Your task to perform on an android device: turn off notifications settings in the gmail app Image 0: 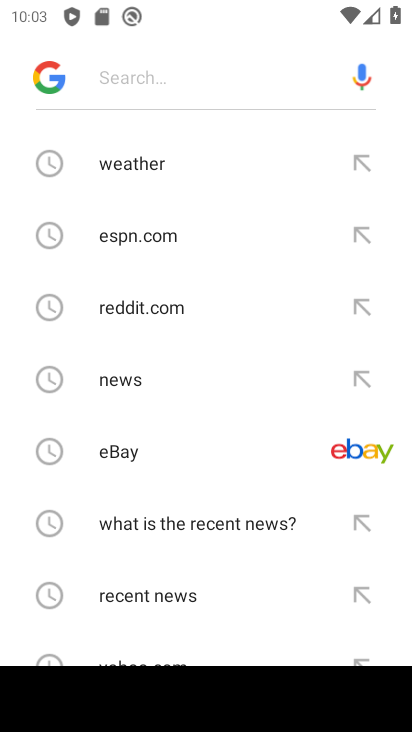
Step 0: press home button
Your task to perform on an android device: turn off notifications settings in the gmail app Image 1: 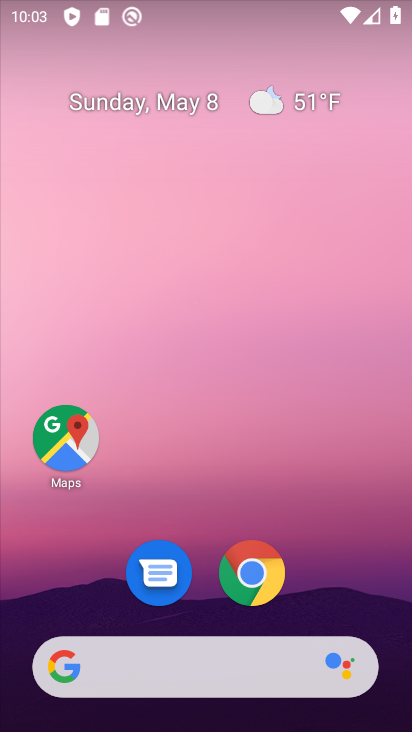
Step 1: drag from (249, 623) to (248, 236)
Your task to perform on an android device: turn off notifications settings in the gmail app Image 2: 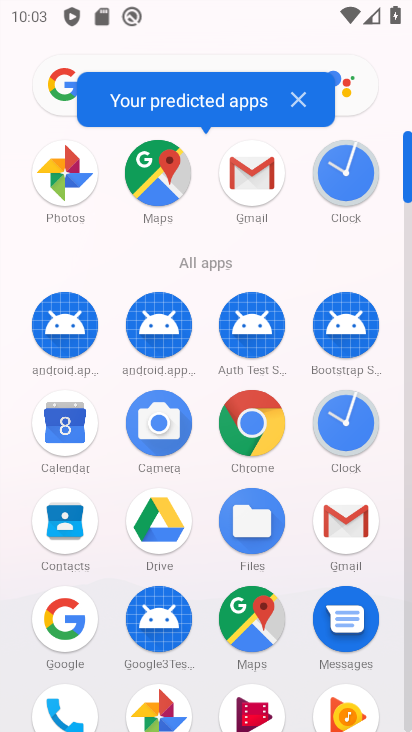
Step 2: click (255, 191)
Your task to perform on an android device: turn off notifications settings in the gmail app Image 3: 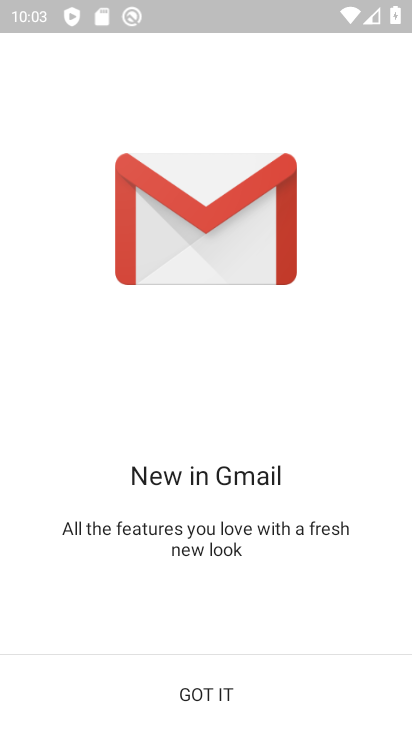
Step 3: click (187, 700)
Your task to perform on an android device: turn off notifications settings in the gmail app Image 4: 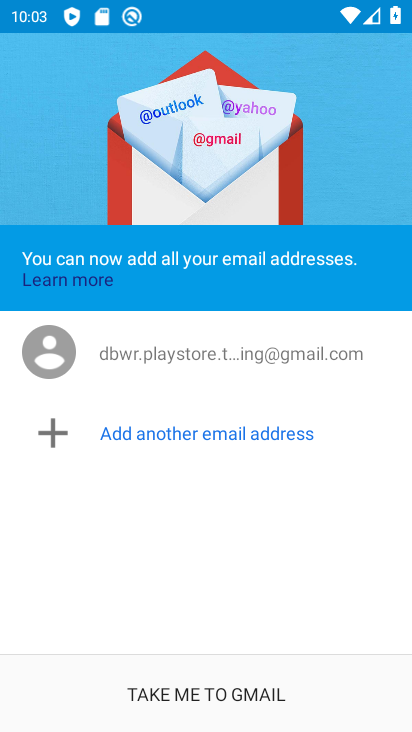
Step 4: click (187, 700)
Your task to perform on an android device: turn off notifications settings in the gmail app Image 5: 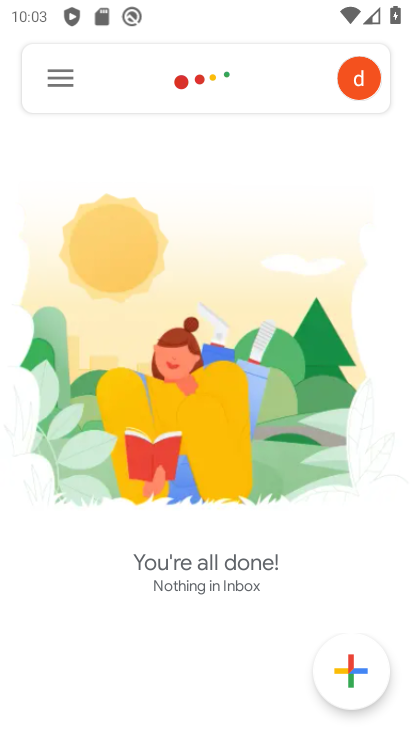
Step 5: click (67, 76)
Your task to perform on an android device: turn off notifications settings in the gmail app Image 6: 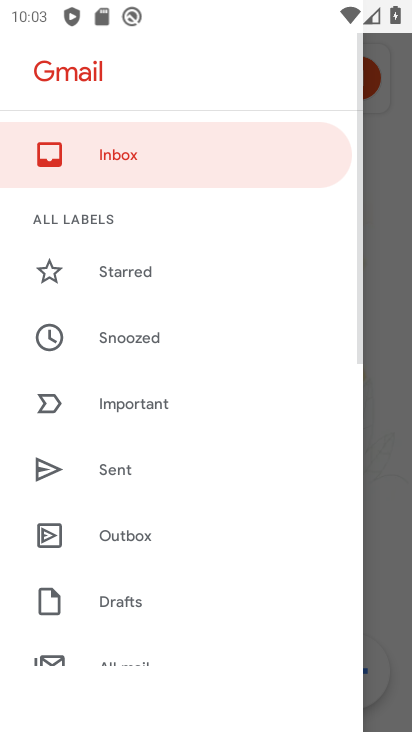
Step 6: drag from (140, 652) to (173, 332)
Your task to perform on an android device: turn off notifications settings in the gmail app Image 7: 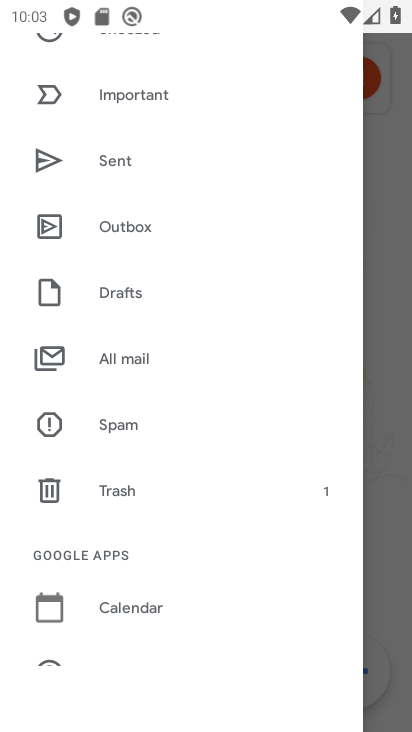
Step 7: drag from (67, 653) to (128, 348)
Your task to perform on an android device: turn off notifications settings in the gmail app Image 8: 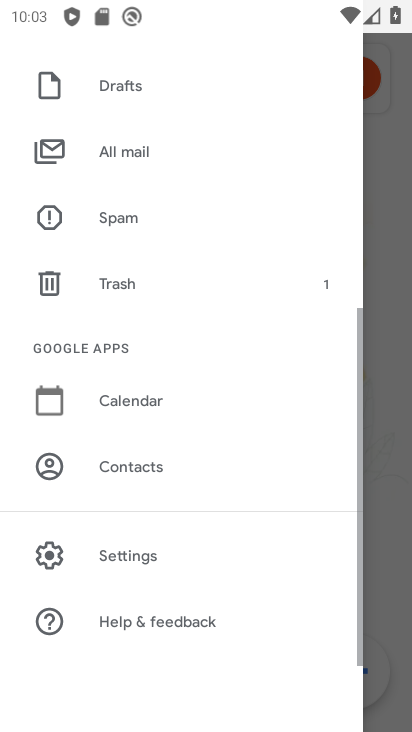
Step 8: click (123, 556)
Your task to perform on an android device: turn off notifications settings in the gmail app Image 9: 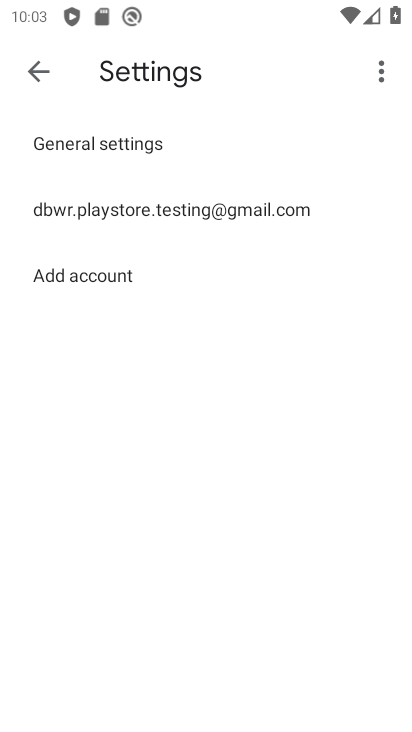
Step 9: click (104, 211)
Your task to perform on an android device: turn off notifications settings in the gmail app Image 10: 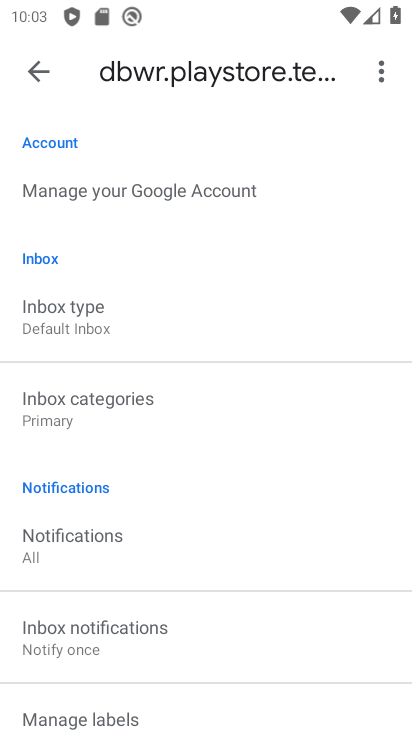
Step 10: click (48, 73)
Your task to perform on an android device: turn off notifications settings in the gmail app Image 11: 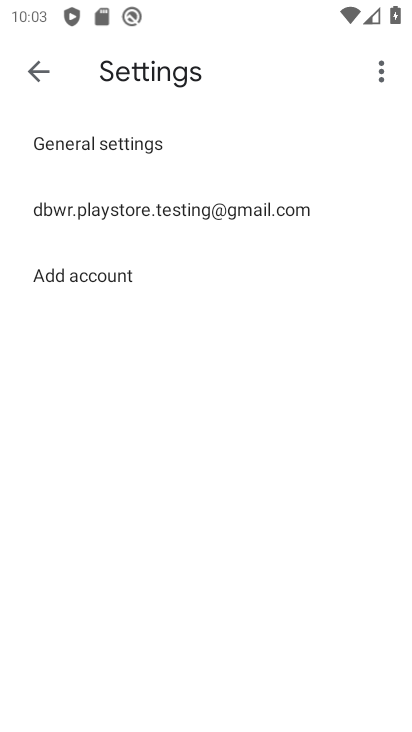
Step 11: click (127, 139)
Your task to perform on an android device: turn off notifications settings in the gmail app Image 12: 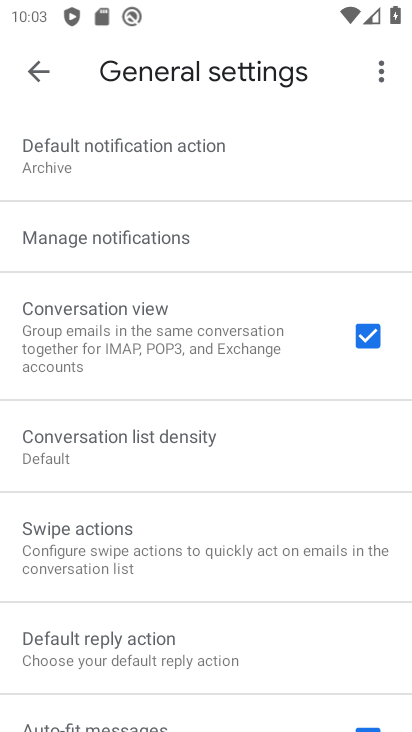
Step 12: click (82, 242)
Your task to perform on an android device: turn off notifications settings in the gmail app Image 13: 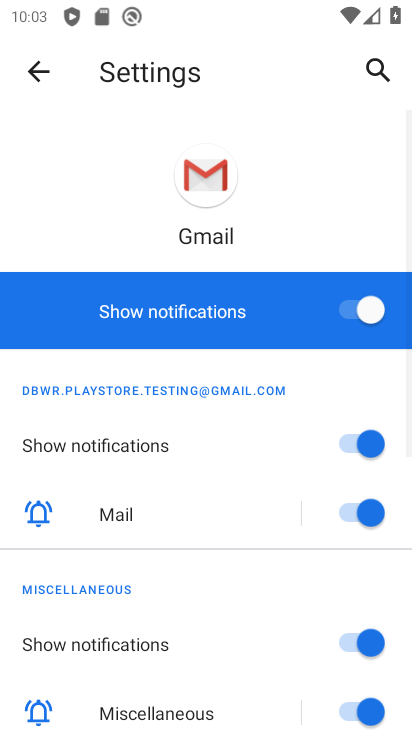
Step 13: click (355, 306)
Your task to perform on an android device: turn off notifications settings in the gmail app Image 14: 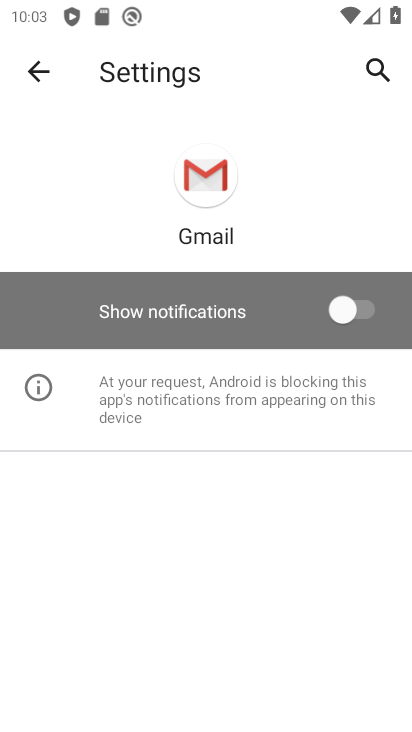
Step 14: task complete